Your task to perform on an android device: change the clock style Image 0: 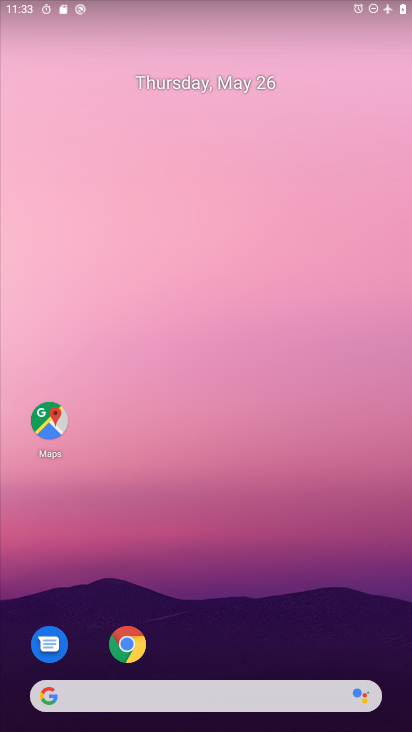
Step 0: drag from (350, 624) to (368, 183)
Your task to perform on an android device: change the clock style Image 1: 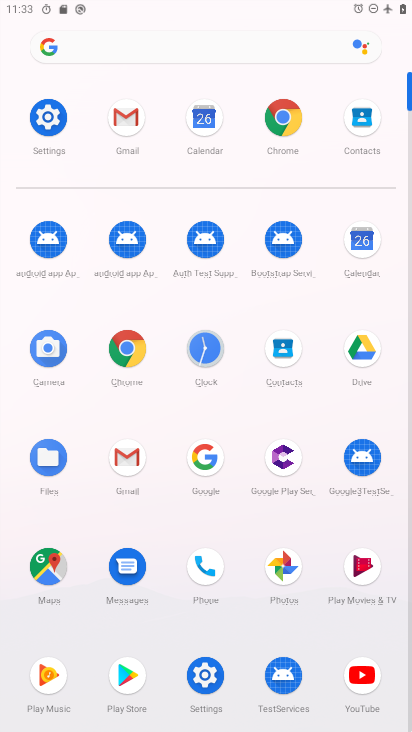
Step 1: click (207, 356)
Your task to perform on an android device: change the clock style Image 2: 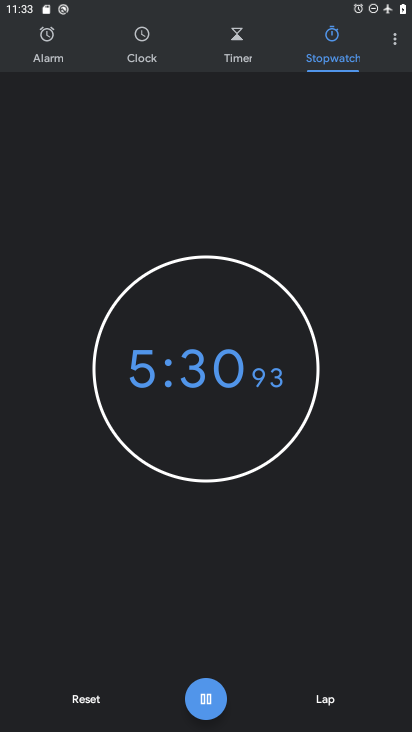
Step 2: click (392, 44)
Your task to perform on an android device: change the clock style Image 3: 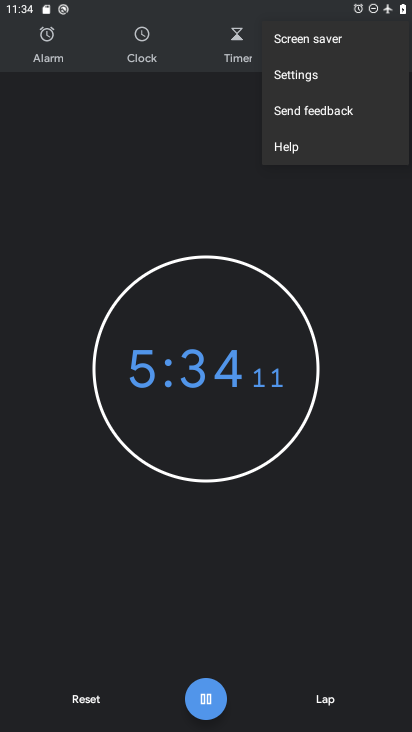
Step 3: click (319, 76)
Your task to perform on an android device: change the clock style Image 4: 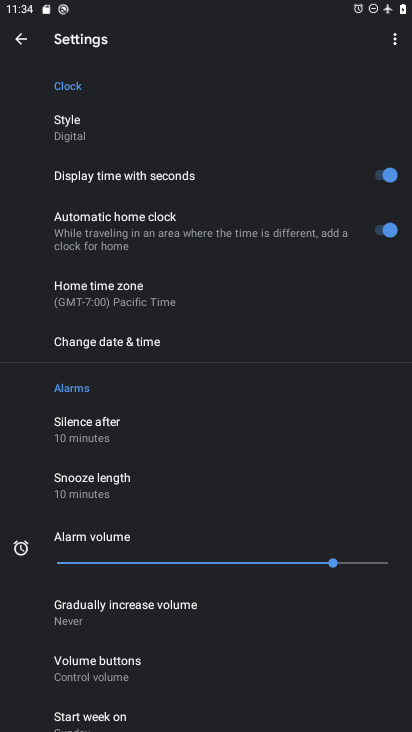
Step 4: drag from (285, 465) to (307, 337)
Your task to perform on an android device: change the clock style Image 5: 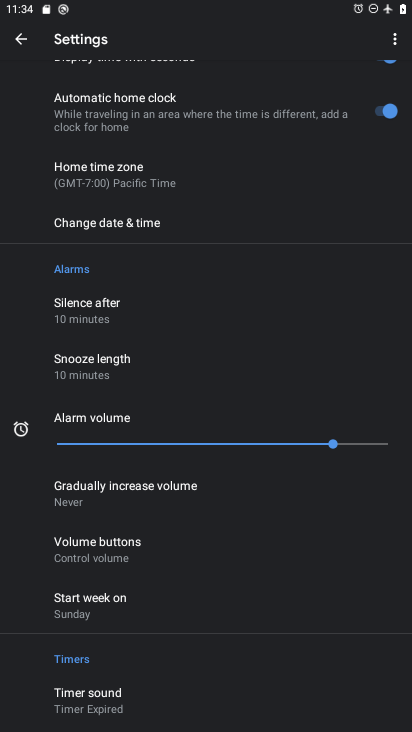
Step 5: drag from (308, 534) to (347, 379)
Your task to perform on an android device: change the clock style Image 6: 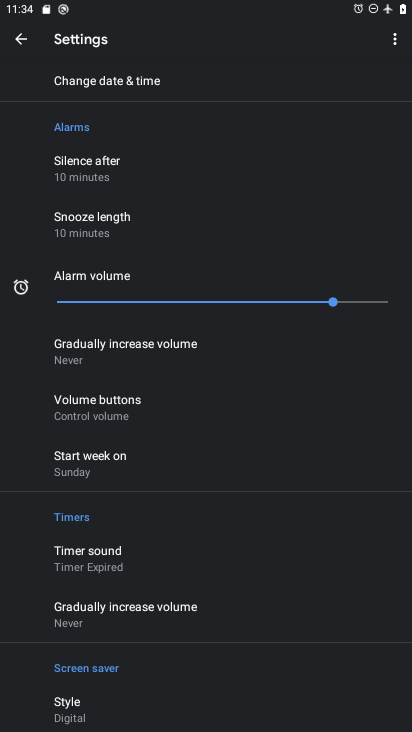
Step 6: drag from (321, 549) to (334, 358)
Your task to perform on an android device: change the clock style Image 7: 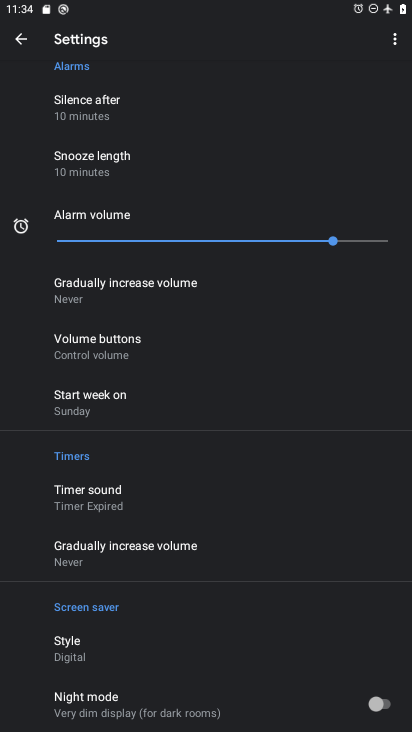
Step 7: drag from (306, 156) to (304, 308)
Your task to perform on an android device: change the clock style Image 8: 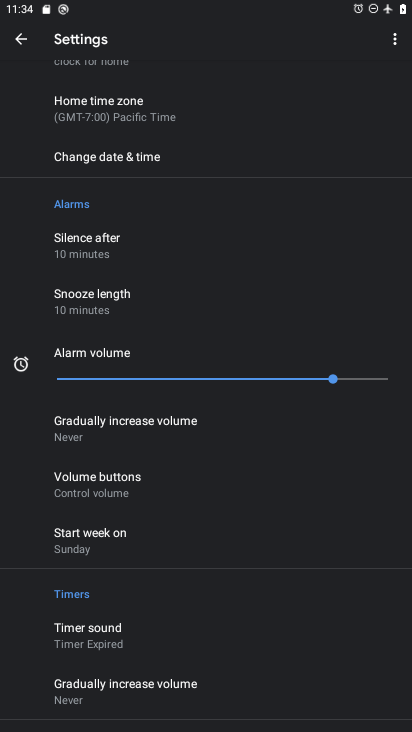
Step 8: drag from (300, 150) to (284, 362)
Your task to perform on an android device: change the clock style Image 9: 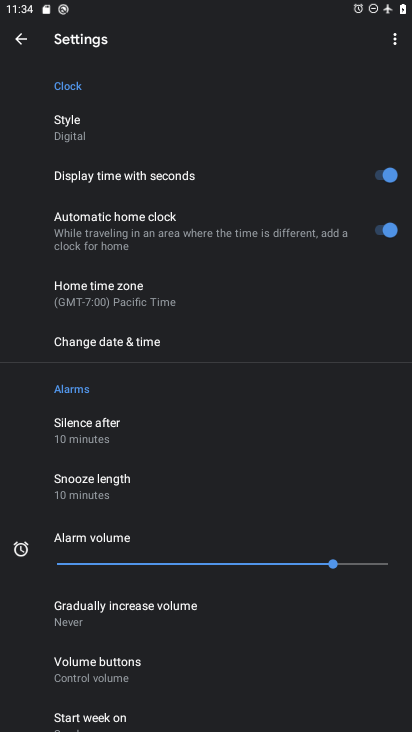
Step 9: drag from (280, 118) to (269, 310)
Your task to perform on an android device: change the clock style Image 10: 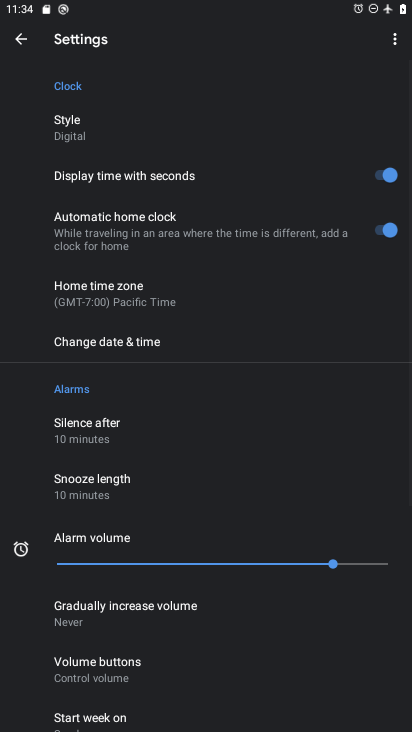
Step 10: click (100, 134)
Your task to perform on an android device: change the clock style Image 11: 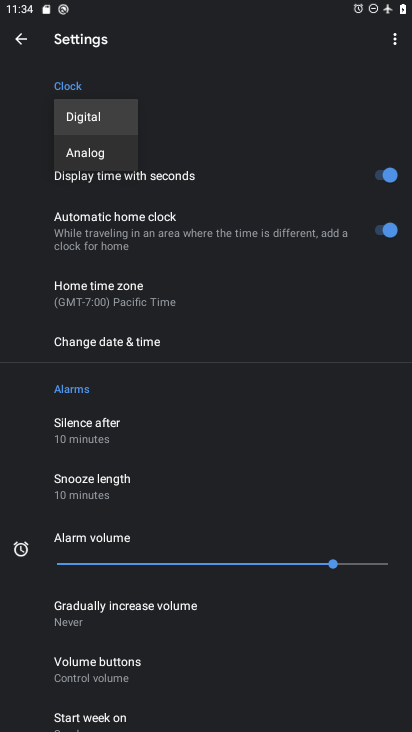
Step 11: click (113, 156)
Your task to perform on an android device: change the clock style Image 12: 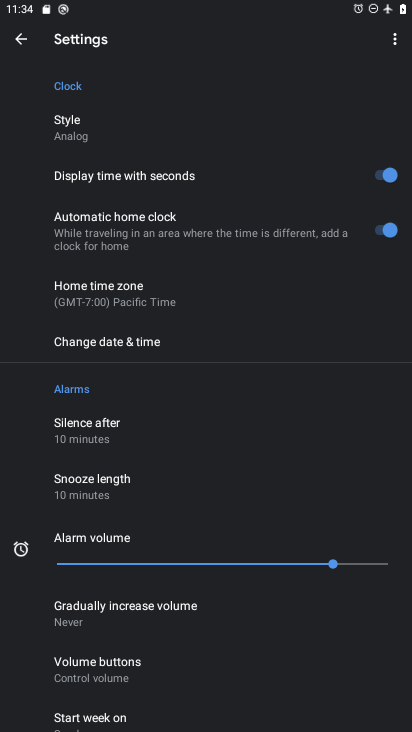
Step 12: task complete